Your task to perform on an android device: add a contact in the contacts app Image 0: 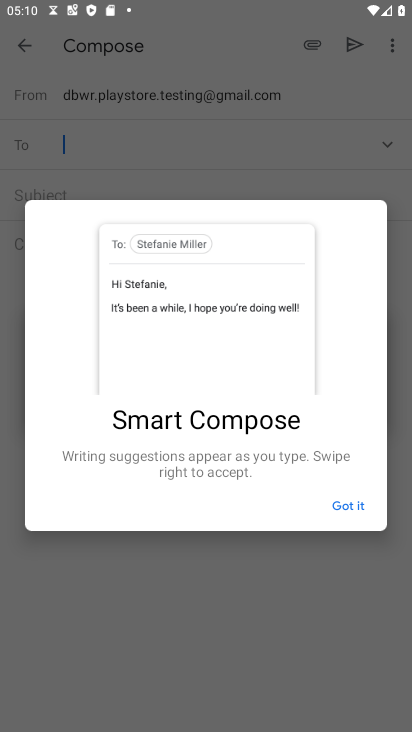
Step 0: press home button
Your task to perform on an android device: add a contact in the contacts app Image 1: 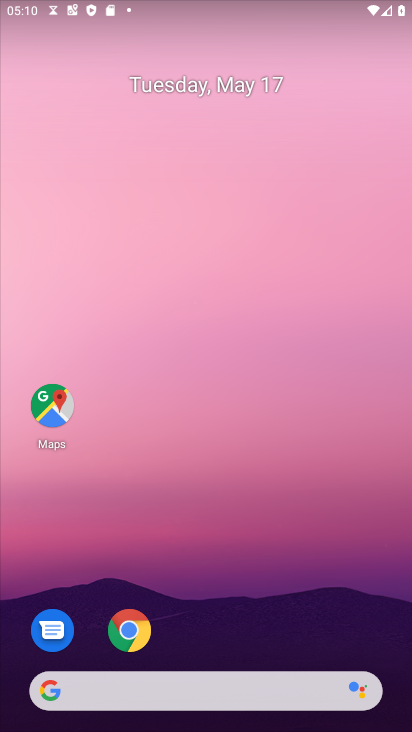
Step 1: drag from (211, 640) to (182, 76)
Your task to perform on an android device: add a contact in the contacts app Image 2: 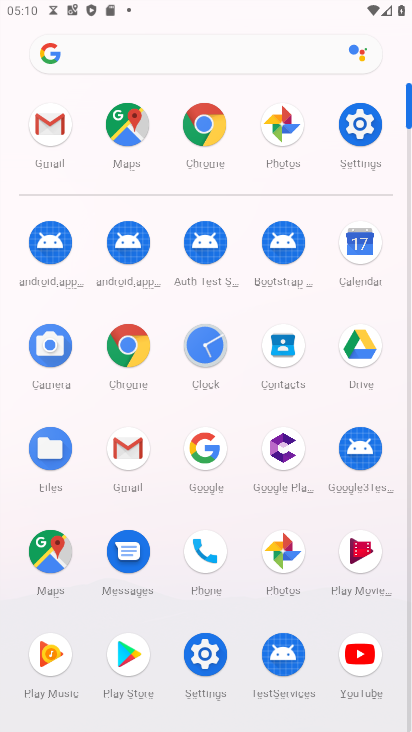
Step 2: click (294, 350)
Your task to perform on an android device: add a contact in the contacts app Image 3: 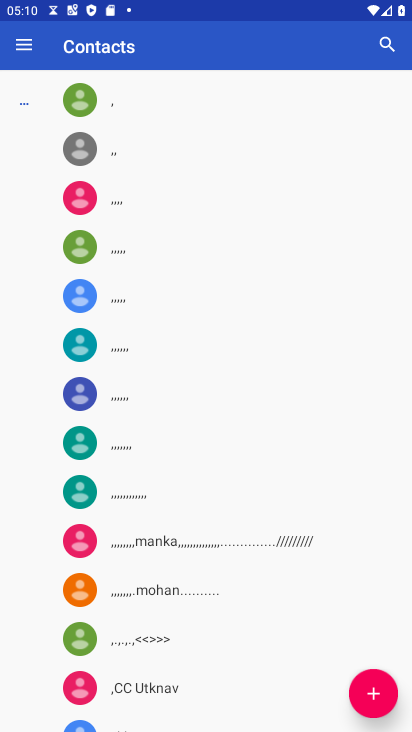
Step 3: click (365, 687)
Your task to perform on an android device: add a contact in the contacts app Image 4: 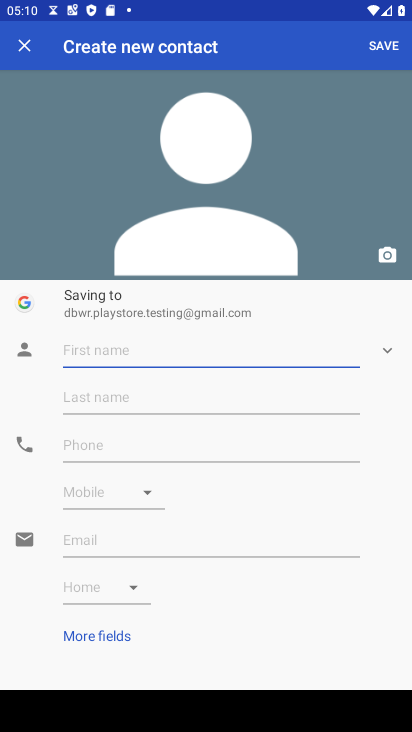
Step 4: type "vffg"
Your task to perform on an android device: add a contact in the contacts app Image 5: 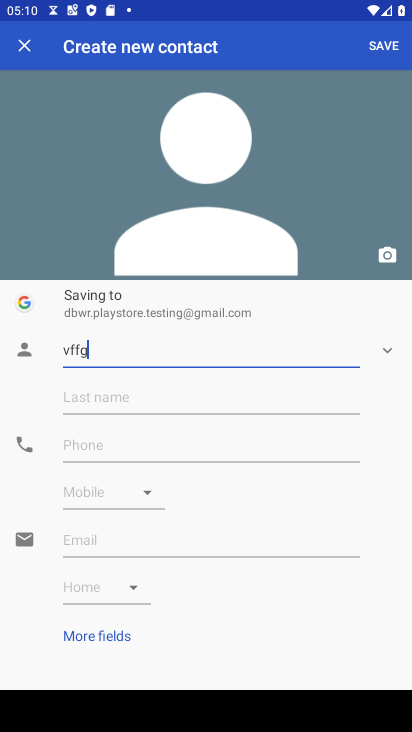
Step 5: click (100, 435)
Your task to perform on an android device: add a contact in the contacts app Image 6: 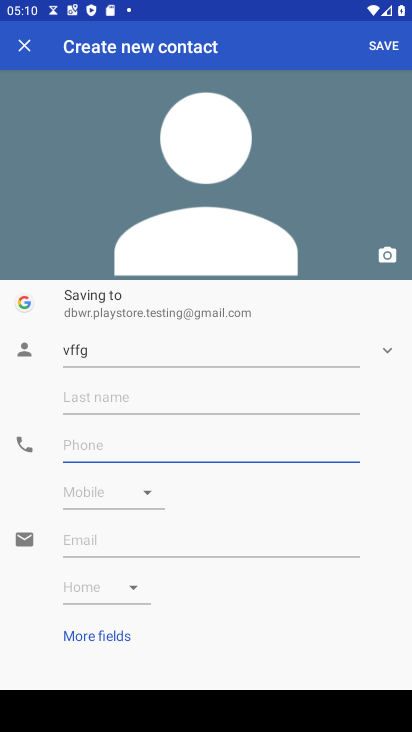
Step 6: type "9880"
Your task to perform on an android device: add a contact in the contacts app Image 7: 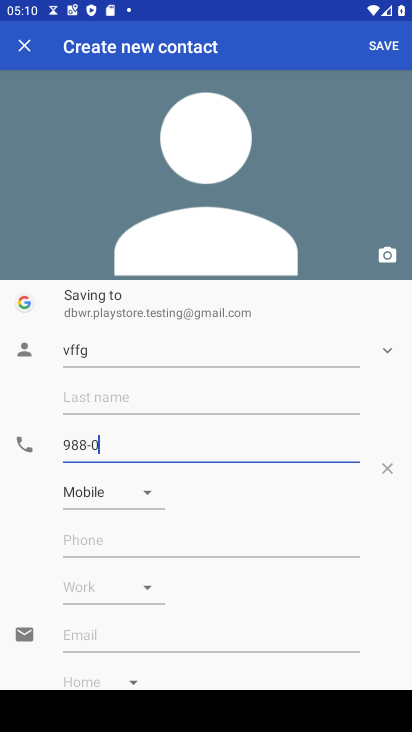
Step 7: click (380, 44)
Your task to perform on an android device: add a contact in the contacts app Image 8: 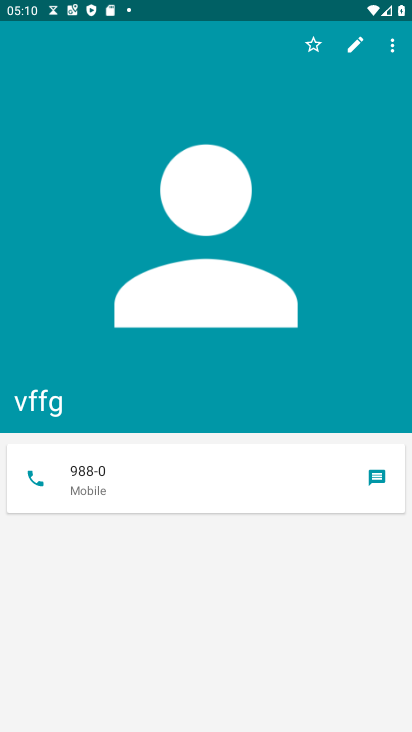
Step 8: task complete